Your task to perform on an android device: turn notification dots on Image 0: 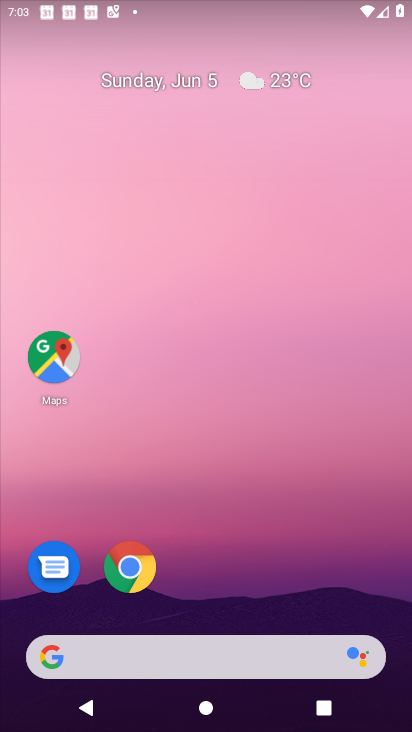
Step 0: drag from (385, 572) to (378, 524)
Your task to perform on an android device: turn notification dots on Image 1: 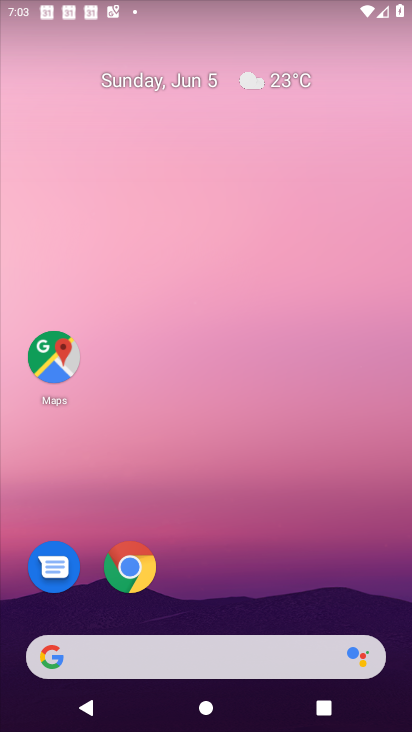
Step 1: click (195, 58)
Your task to perform on an android device: turn notification dots on Image 2: 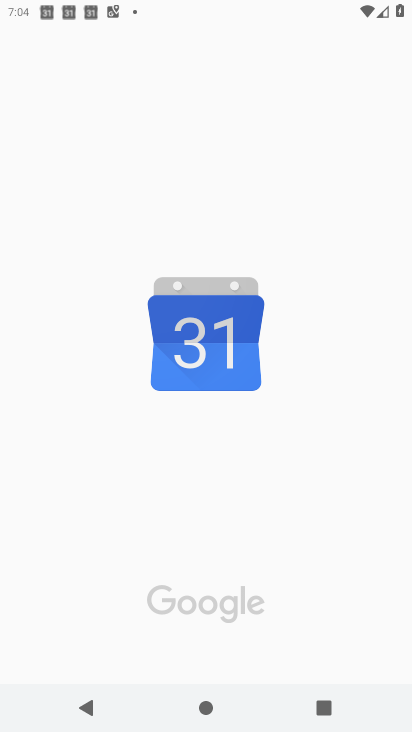
Step 2: press home button
Your task to perform on an android device: turn notification dots on Image 3: 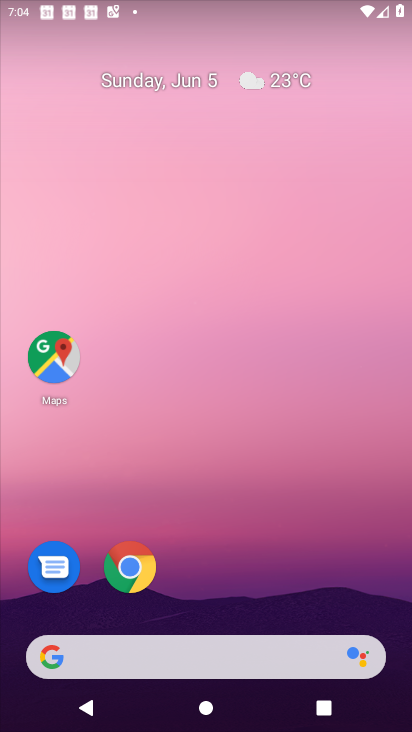
Step 3: drag from (390, 642) to (292, 3)
Your task to perform on an android device: turn notification dots on Image 4: 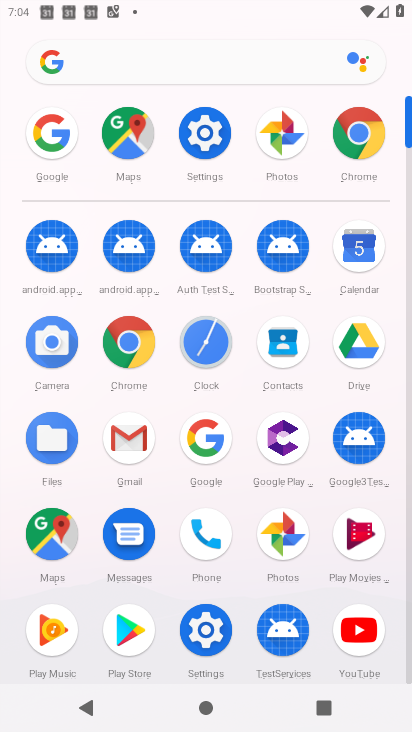
Step 4: click (190, 128)
Your task to perform on an android device: turn notification dots on Image 5: 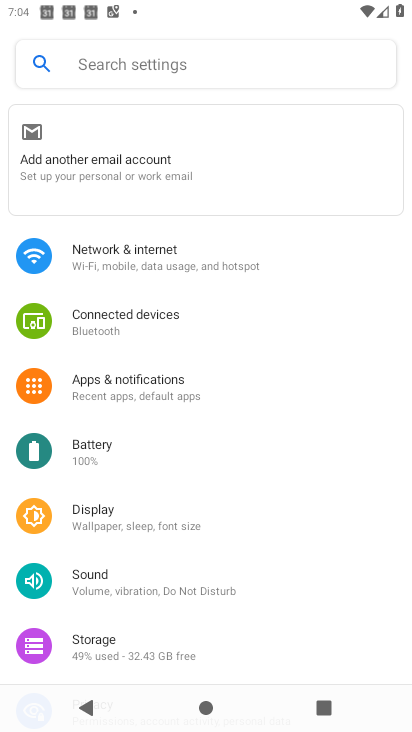
Step 5: click (148, 400)
Your task to perform on an android device: turn notification dots on Image 6: 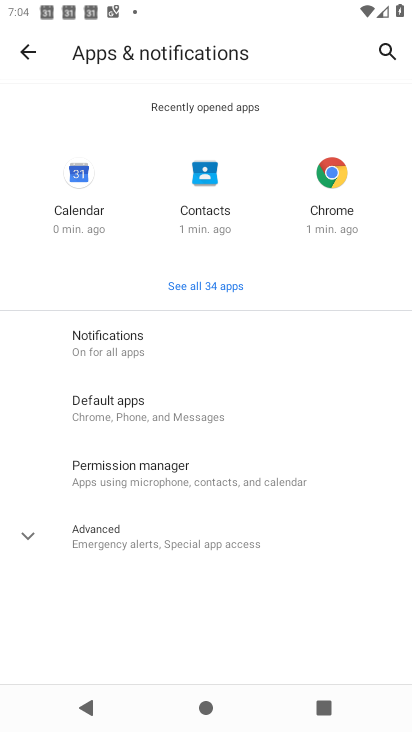
Step 6: click (177, 345)
Your task to perform on an android device: turn notification dots on Image 7: 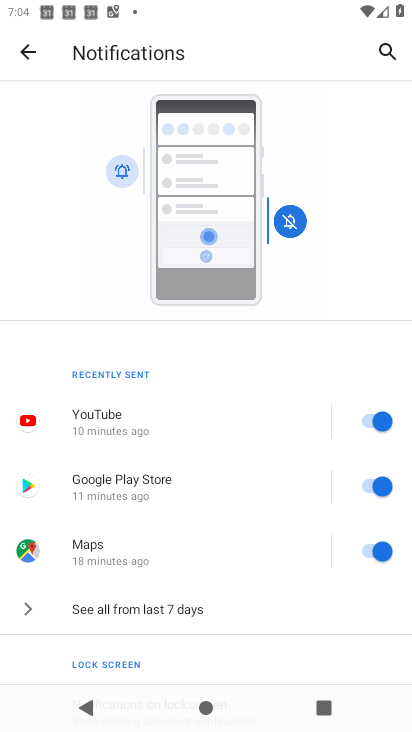
Step 7: drag from (236, 617) to (146, 60)
Your task to perform on an android device: turn notification dots on Image 8: 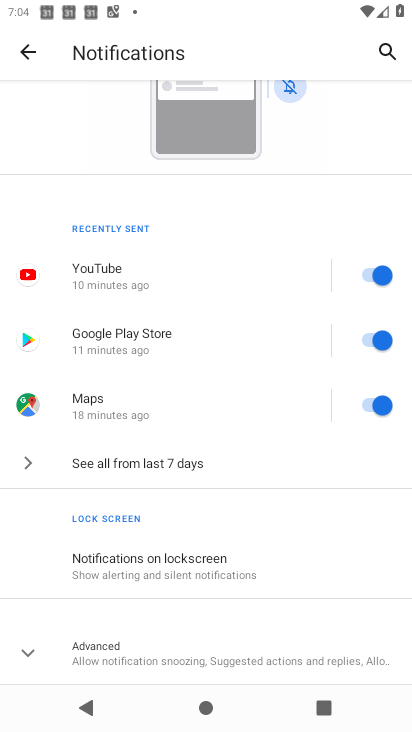
Step 8: click (152, 655)
Your task to perform on an android device: turn notification dots on Image 9: 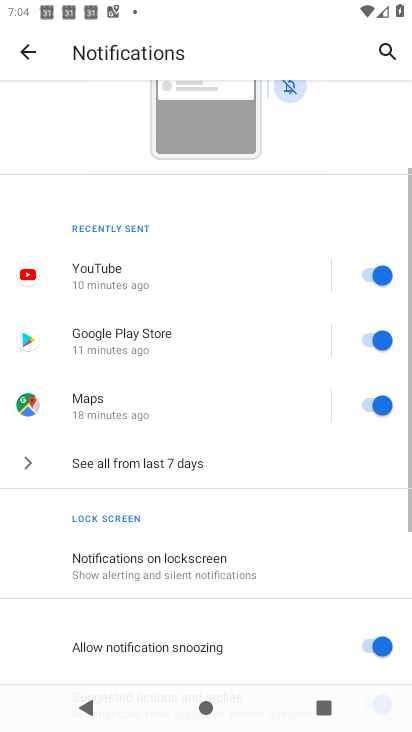
Step 9: drag from (152, 655) to (175, 461)
Your task to perform on an android device: turn notification dots on Image 10: 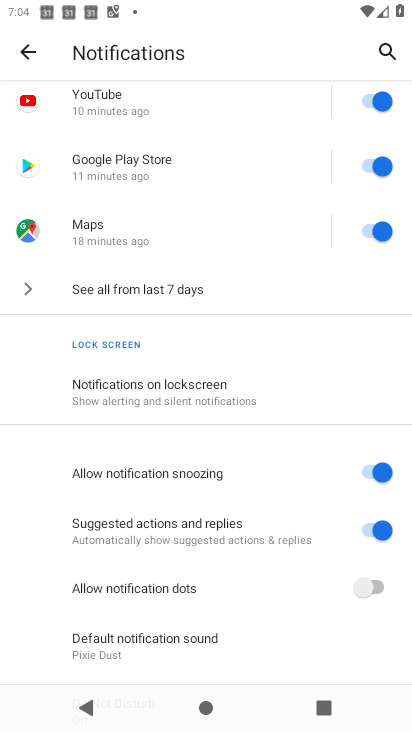
Step 10: click (282, 586)
Your task to perform on an android device: turn notification dots on Image 11: 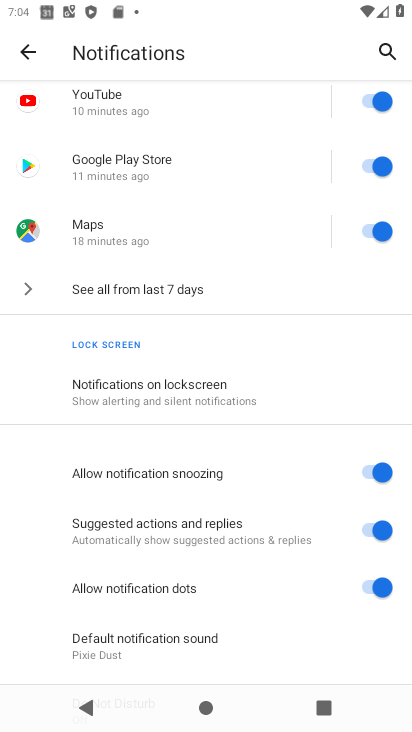
Step 11: task complete